Your task to perform on an android device: toggle wifi Image 0: 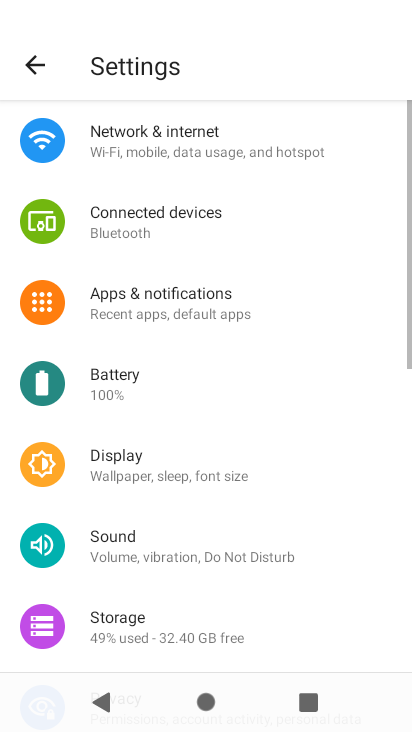
Step 0: press home button
Your task to perform on an android device: toggle wifi Image 1: 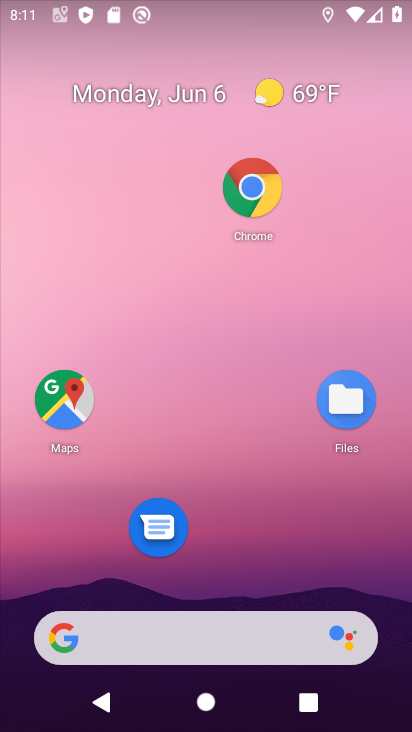
Step 1: drag from (222, 565) to (200, 121)
Your task to perform on an android device: toggle wifi Image 2: 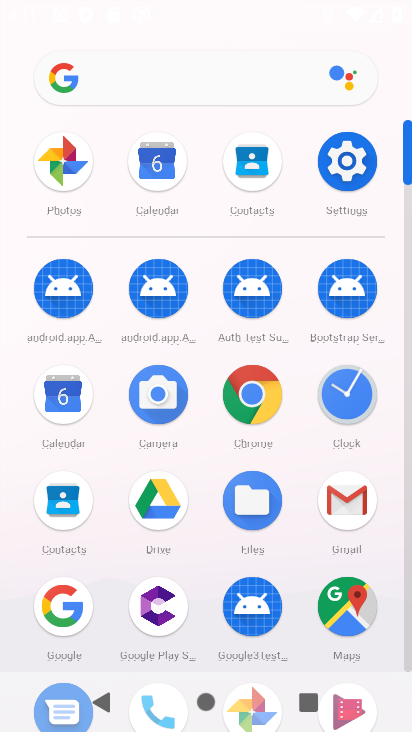
Step 2: click (347, 158)
Your task to perform on an android device: toggle wifi Image 3: 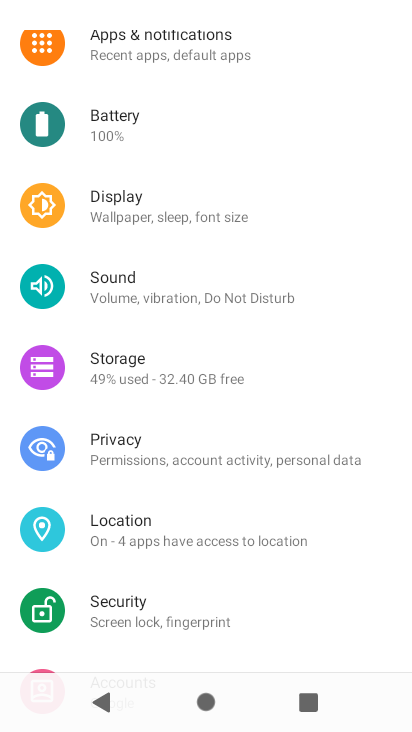
Step 3: drag from (305, 178) to (291, 332)
Your task to perform on an android device: toggle wifi Image 4: 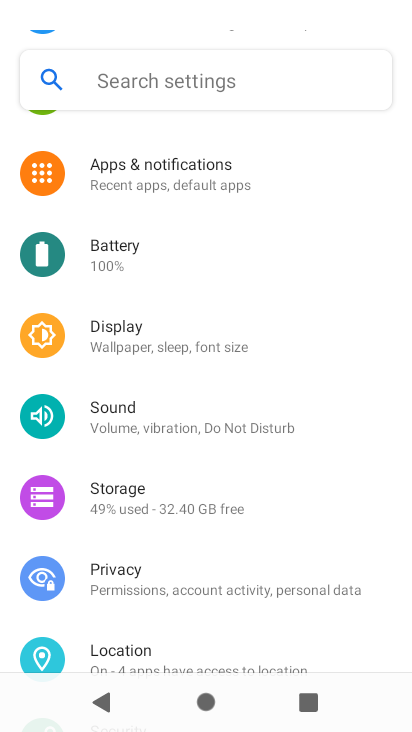
Step 4: drag from (220, 164) to (210, 602)
Your task to perform on an android device: toggle wifi Image 5: 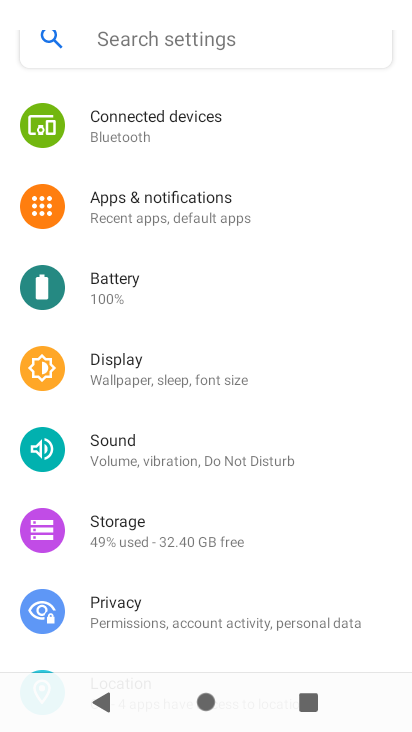
Step 5: drag from (255, 128) to (263, 507)
Your task to perform on an android device: toggle wifi Image 6: 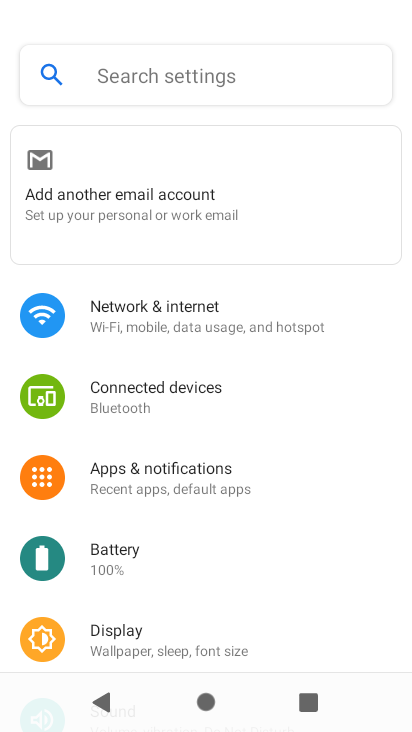
Step 6: drag from (261, 211) to (281, 346)
Your task to perform on an android device: toggle wifi Image 7: 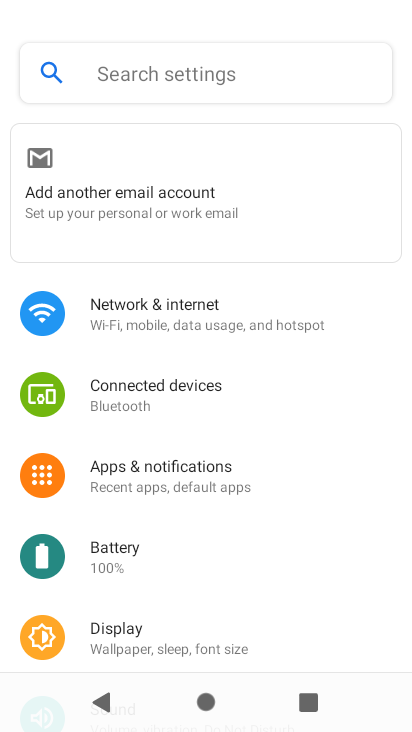
Step 7: click (235, 326)
Your task to perform on an android device: toggle wifi Image 8: 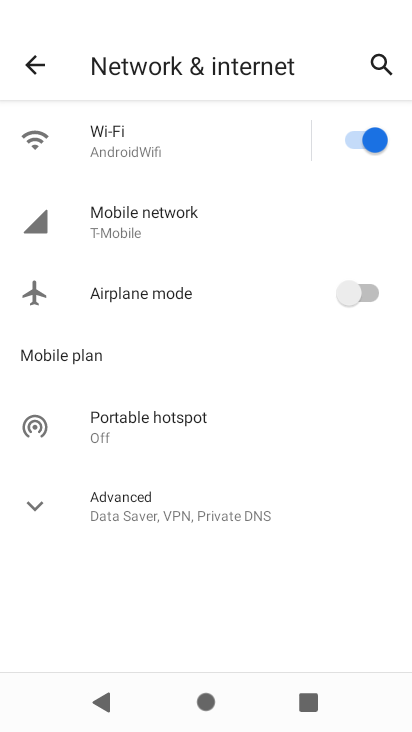
Step 8: click (367, 135)
Your task to perform on an android device: toggle wifi Image 9: 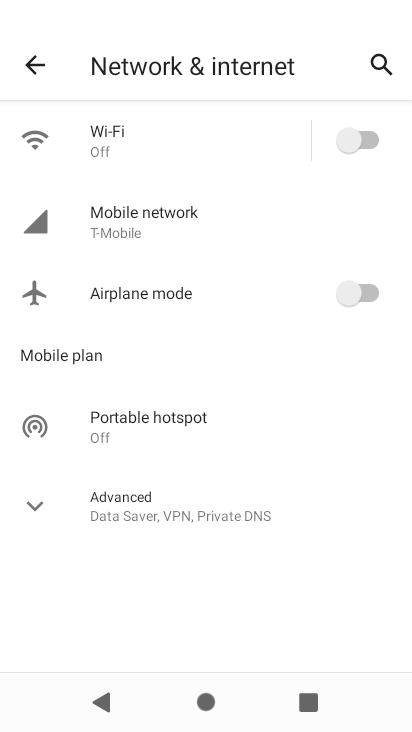
Step 9: task complete